Your task to perform on an android device: Open my contact list Image 0: 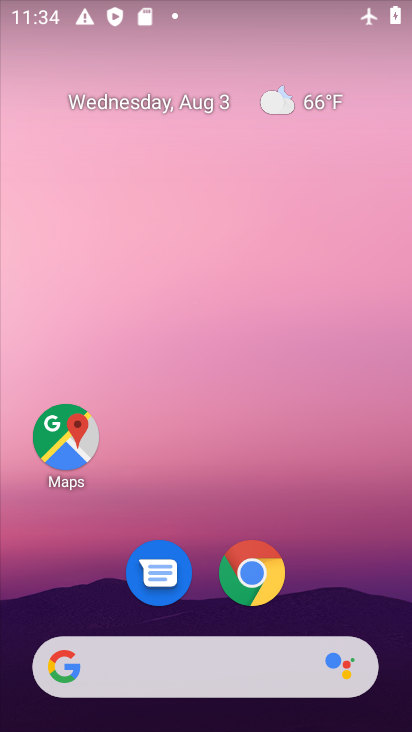
Step 0: drag from (349, 554) to (251, 130)
Your task to perform on an android device: Open my contact list Image 1: 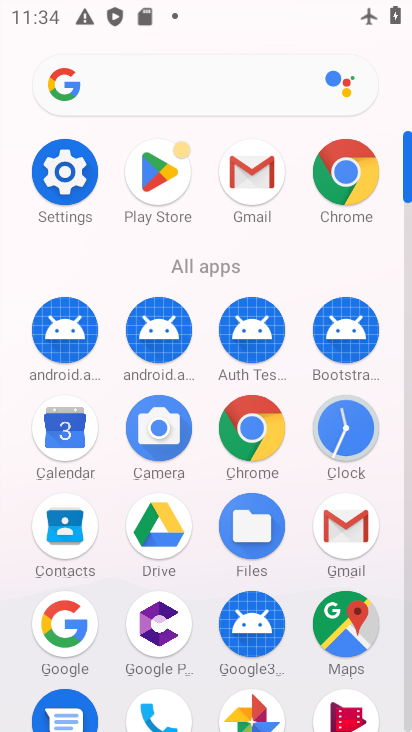
Step 1: click (63, 529)
Your task to perform on an android device: Open my contact list Image 2: 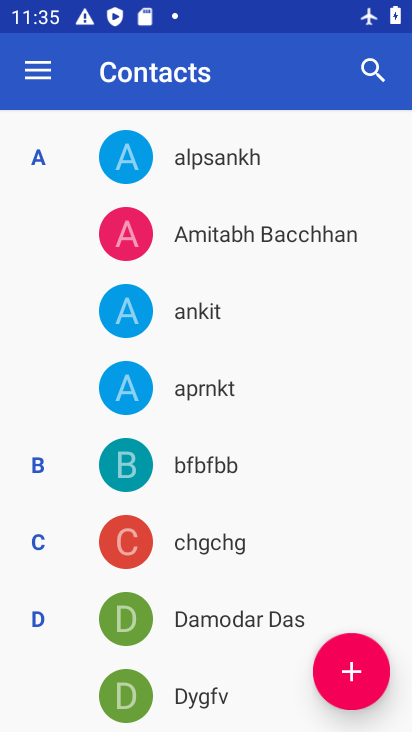
Step 2: task complete